Your task to perform on an android device: Open settings Image 0: 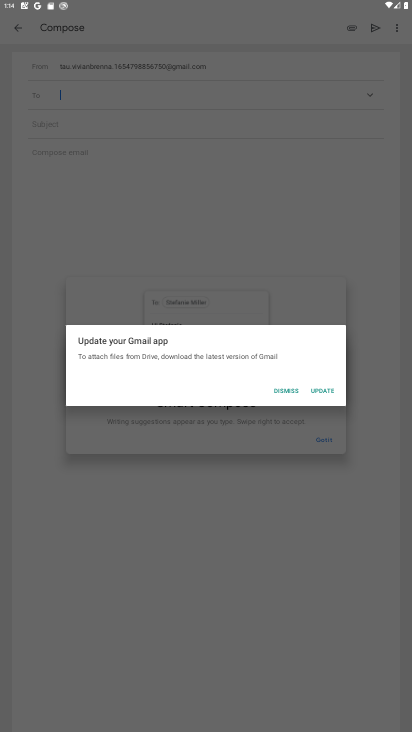
Step 0: press home button
Your task to perform on an android device: Open settings Image 1: 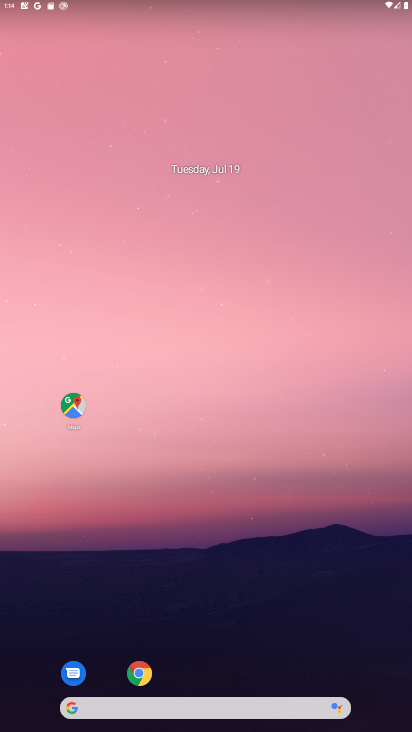
Step 1: drag from (271, 720) to (363, 82)
Your task to perform on an android device: Open settings Image 2: 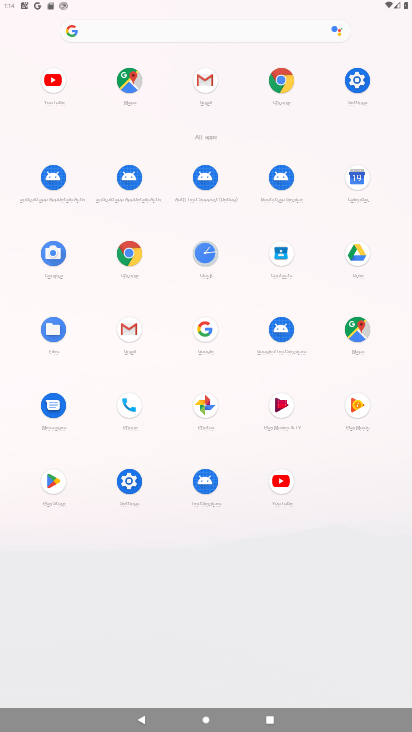
Step 2: click (352, 81)
Your task to perform on an android device: Open settings Image 3: 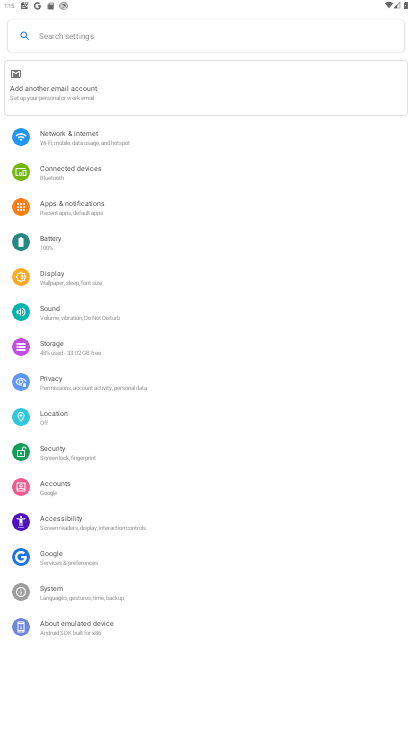
Step 3: task complete